Your task to perform on an android device: toggle improve location accuracy Image 0: 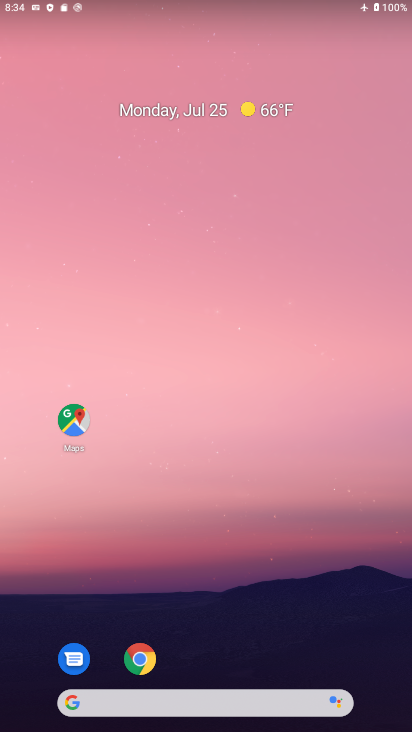
Step 0: drag from (297, 638) to (244, 257)
Your task to perform on an android device: toggle improve location accuracy Image 1: 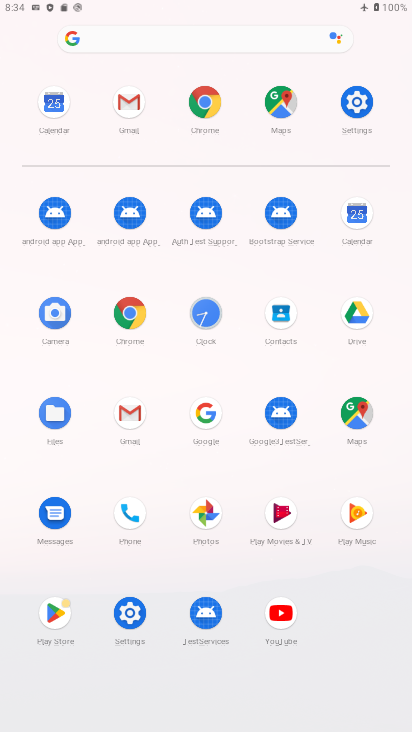
Step 1: click (346, 89)
Your task to perform on an android device: toggle improve location accuracy Image 2: 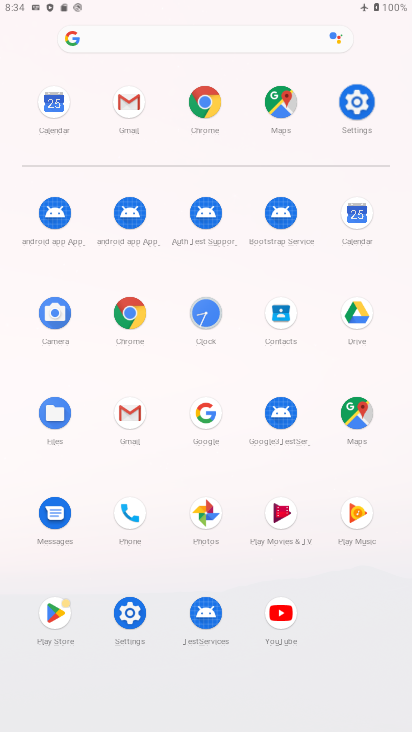
Step 2: click (359, 106)
Your task to perform on an android device: toggle improve location accuracy Image 3: 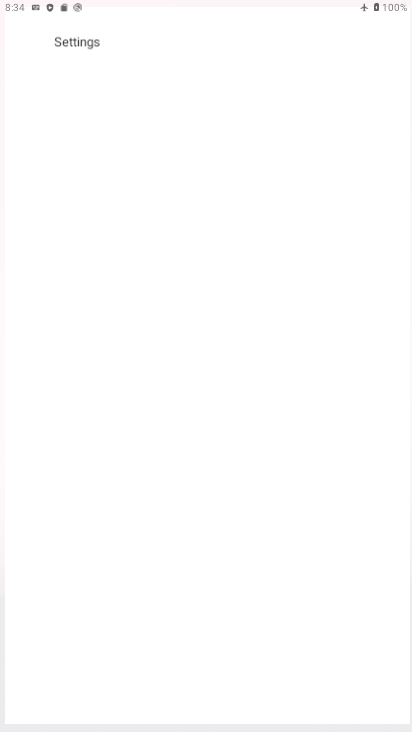
Step 3: click (363, 109)
Your task to perform on an android device: toggle improve location accuracy Image 4: 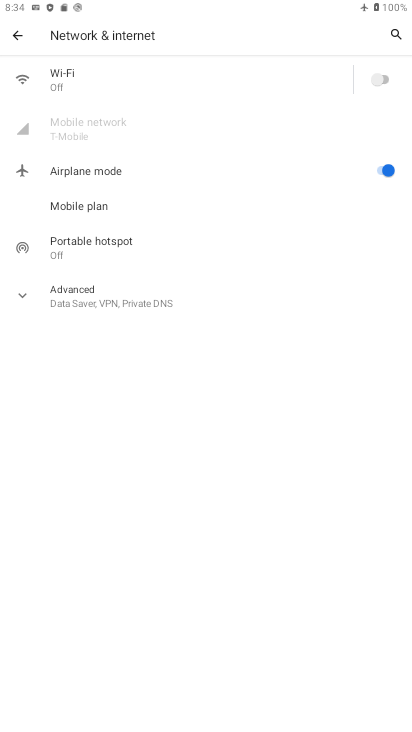
Step 4: click (15, 30)
Your task to perform on an android device: toggle improve location accuracy Image 5: 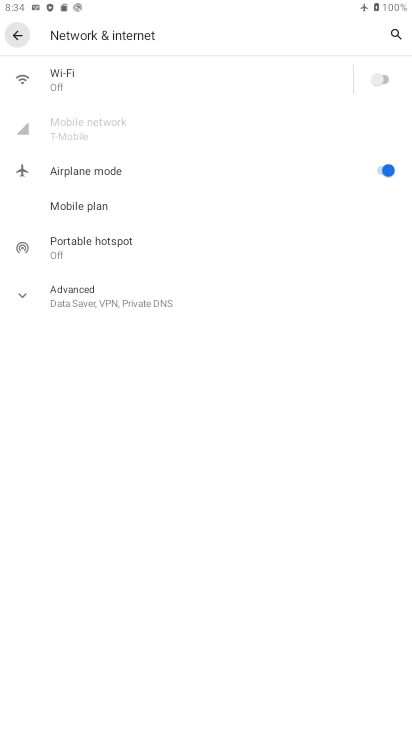
Step 5: click (25, 25)
Your task to perform on an android device: toggle improve location accuracy Image 6: 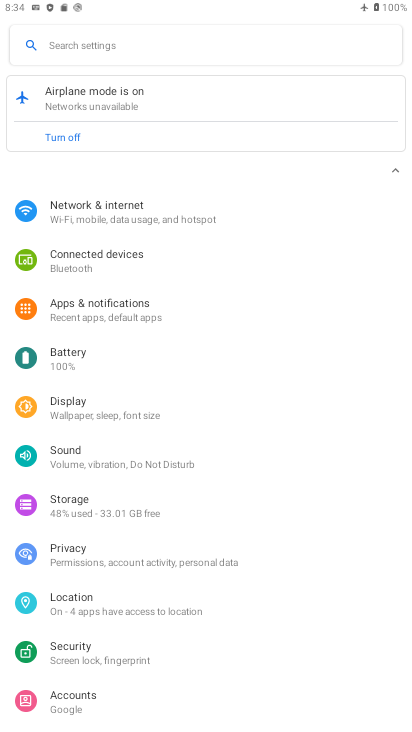
Step 6: click (84, 603)
Your task to perform on an android device: toggle improve location accuracy Image 7: 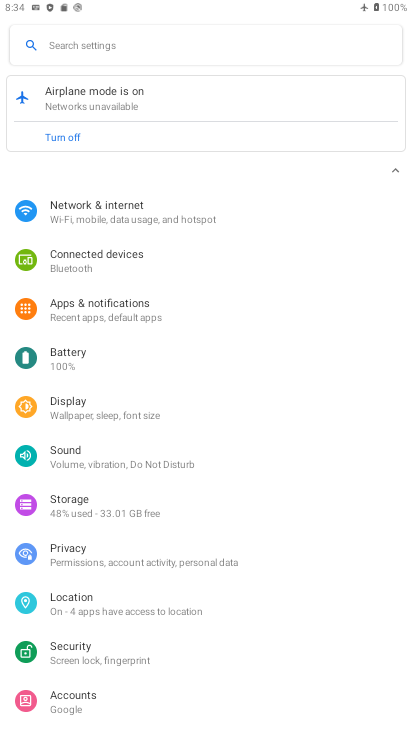
Step 7: click (88, 604)
Your task to perform on an android device: toggle improve location accuracy Image 8: 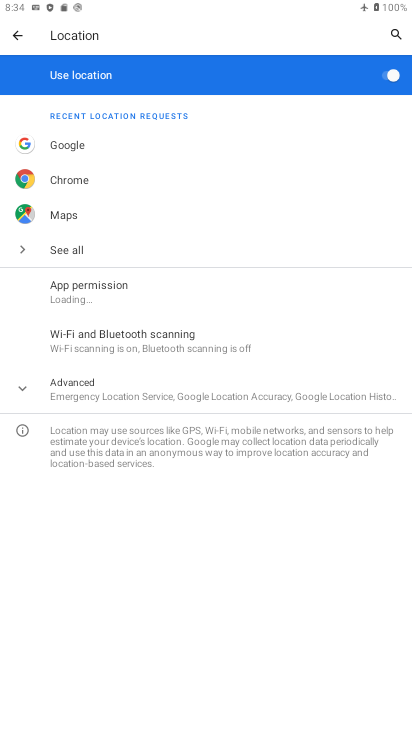
Step 8: click (101, 390)
Your task to perform on an android device: toggle improve location accuracy Image 9: 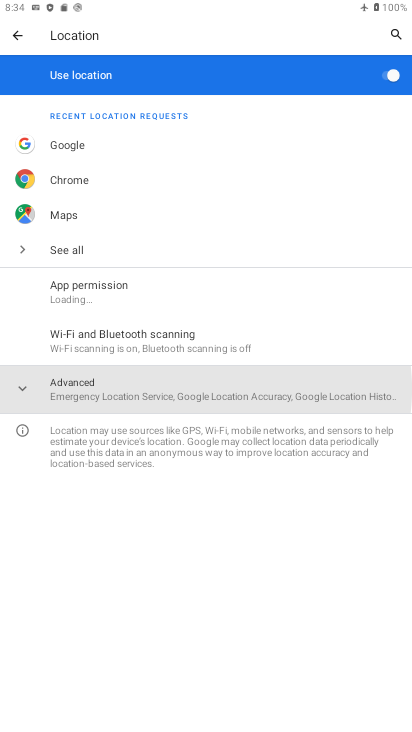
Step 9: click (100, 389)
Your task to perform on an android device: toggle improve location accuracy Image 10: 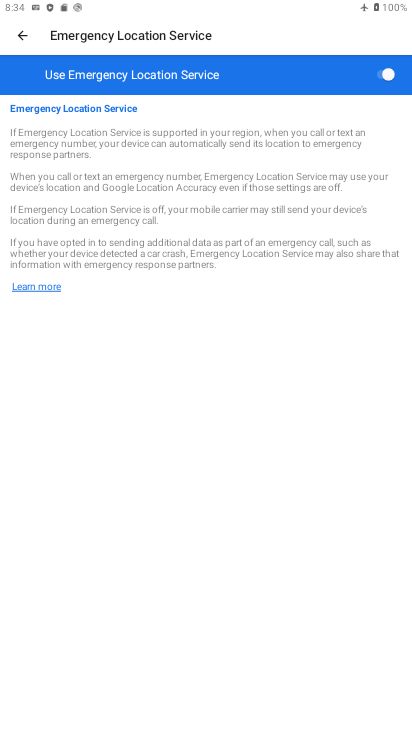
Step 10: click (19, 39)
Your task to perform on an android device: toggle improve location accuracy Image 11: 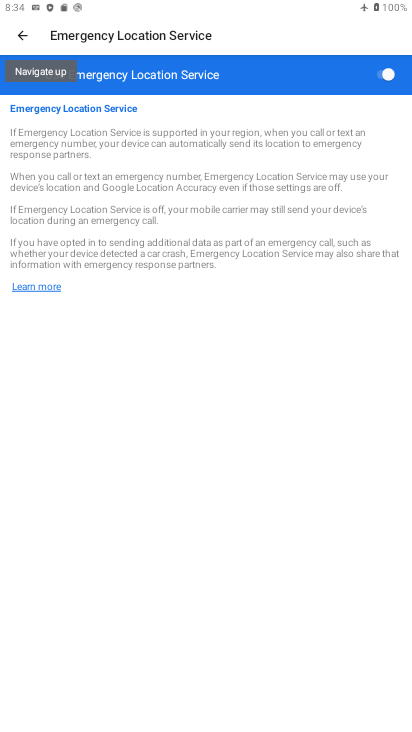
Step 11: click (17, 40)
Your task to perform on an android device: toggle improve location accuracy Image 12: 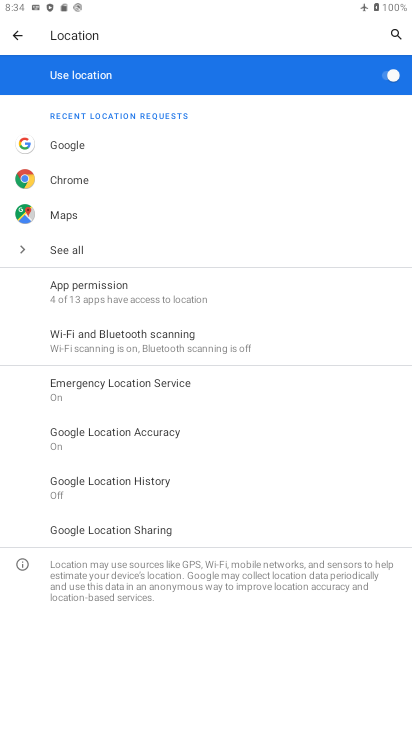
Step 12: click (117, 439)
Your task to perform on an android device: toggle improve location accuracy Image 13: 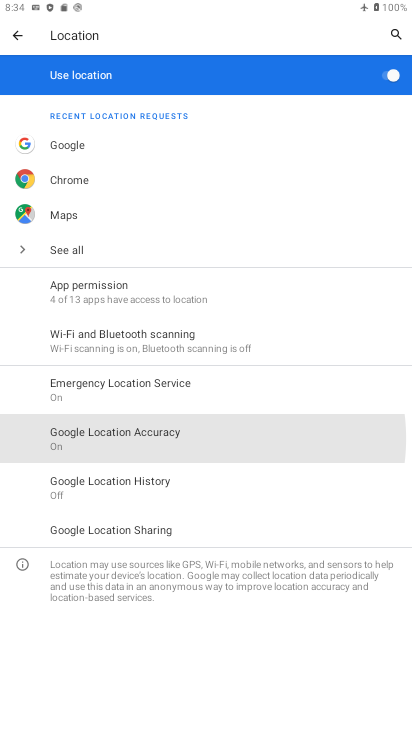
Step 13: click (117, 437)
Your task to perform on an android device: toggle improve location accuracy Image 14: 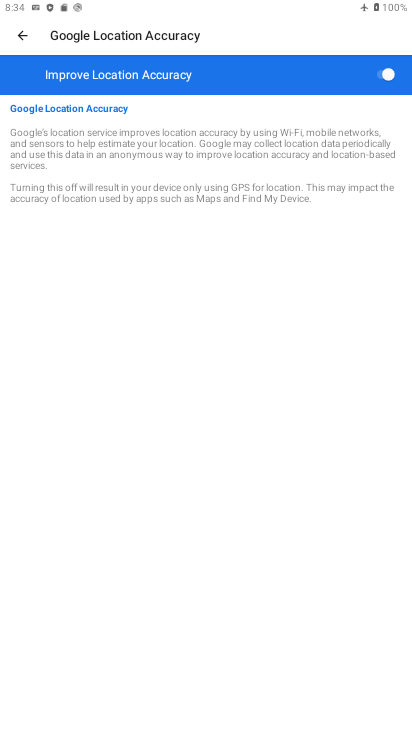
Step 14: click (379, 82)
Your task to perform on an android device: toggle improve location accuracy Image 15: 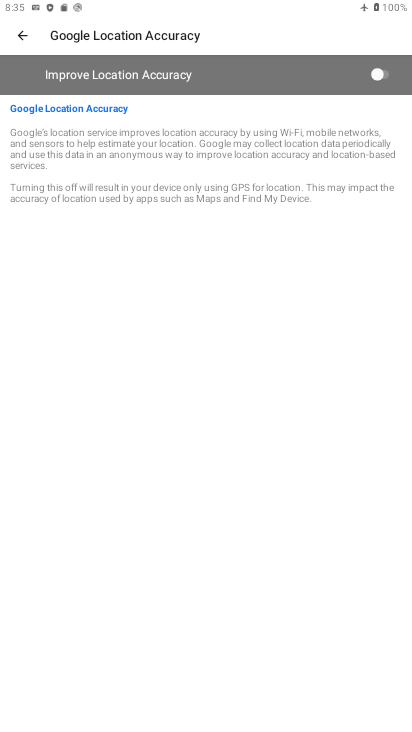
Step 15: task complete